Your task to perform on an android device: change your default location settings in chrome Image 0: 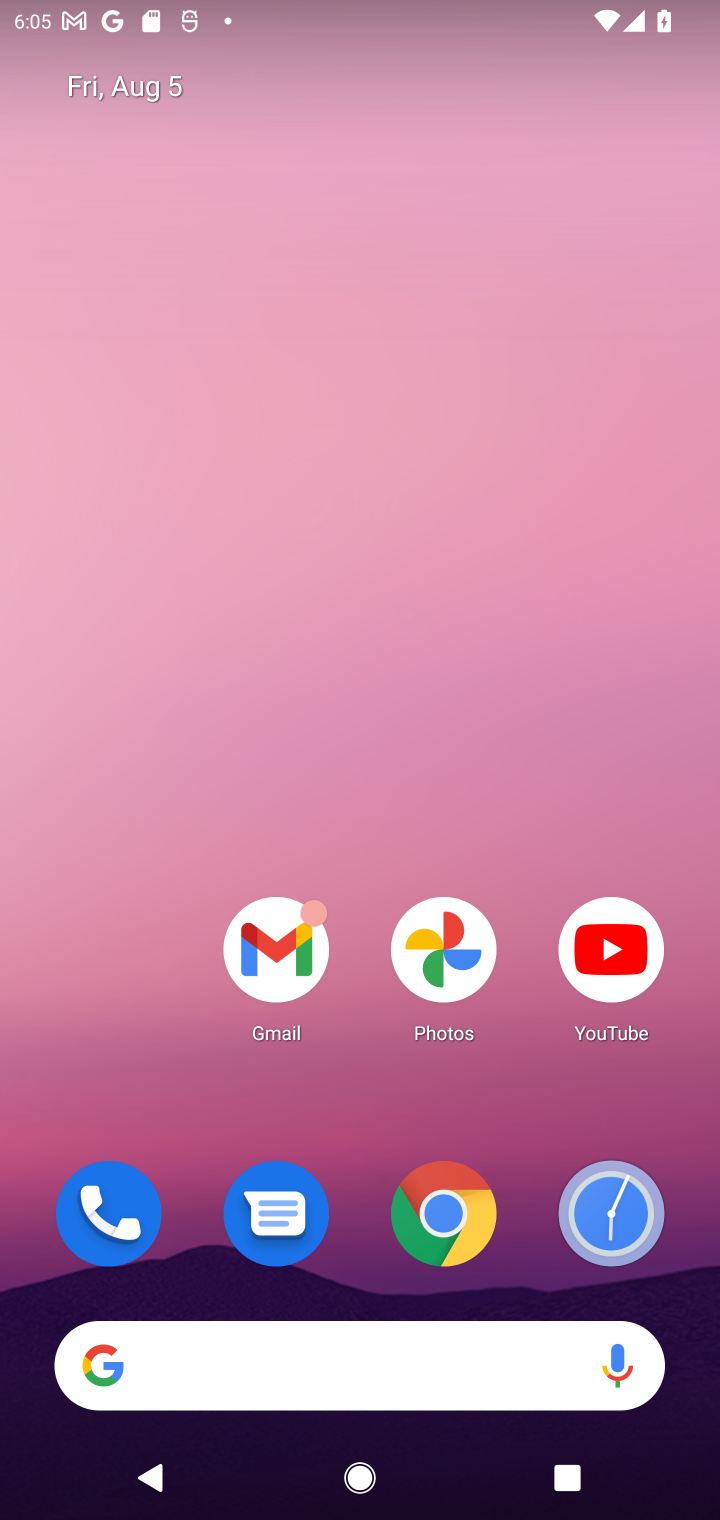
Step 0: drag from (358, 1301) to (387, 355)
Your task to perform on an android device: change your default location settings in chrome Image 1: 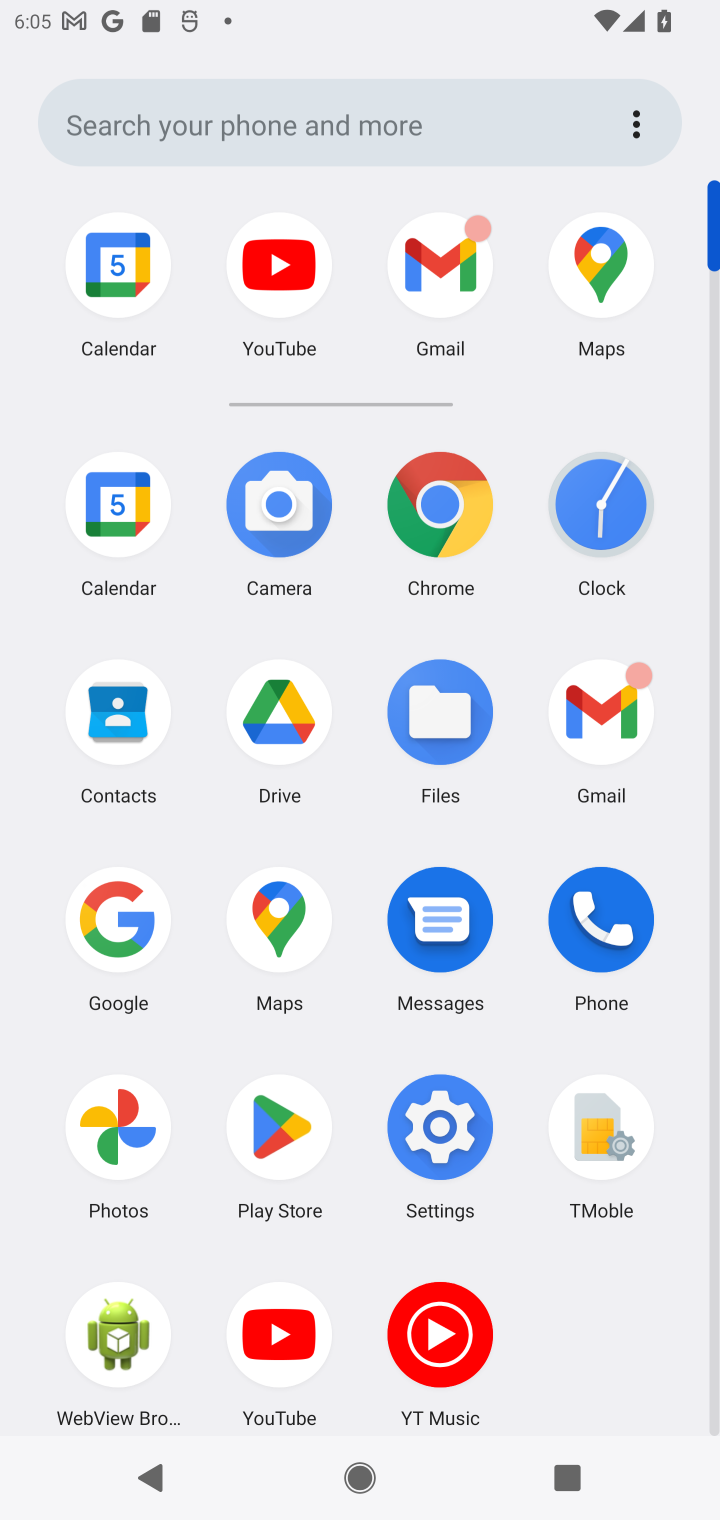
Step 1: click (462, 1207)
Your task to perform on an android device: change your default location settings in chrome Image 2: 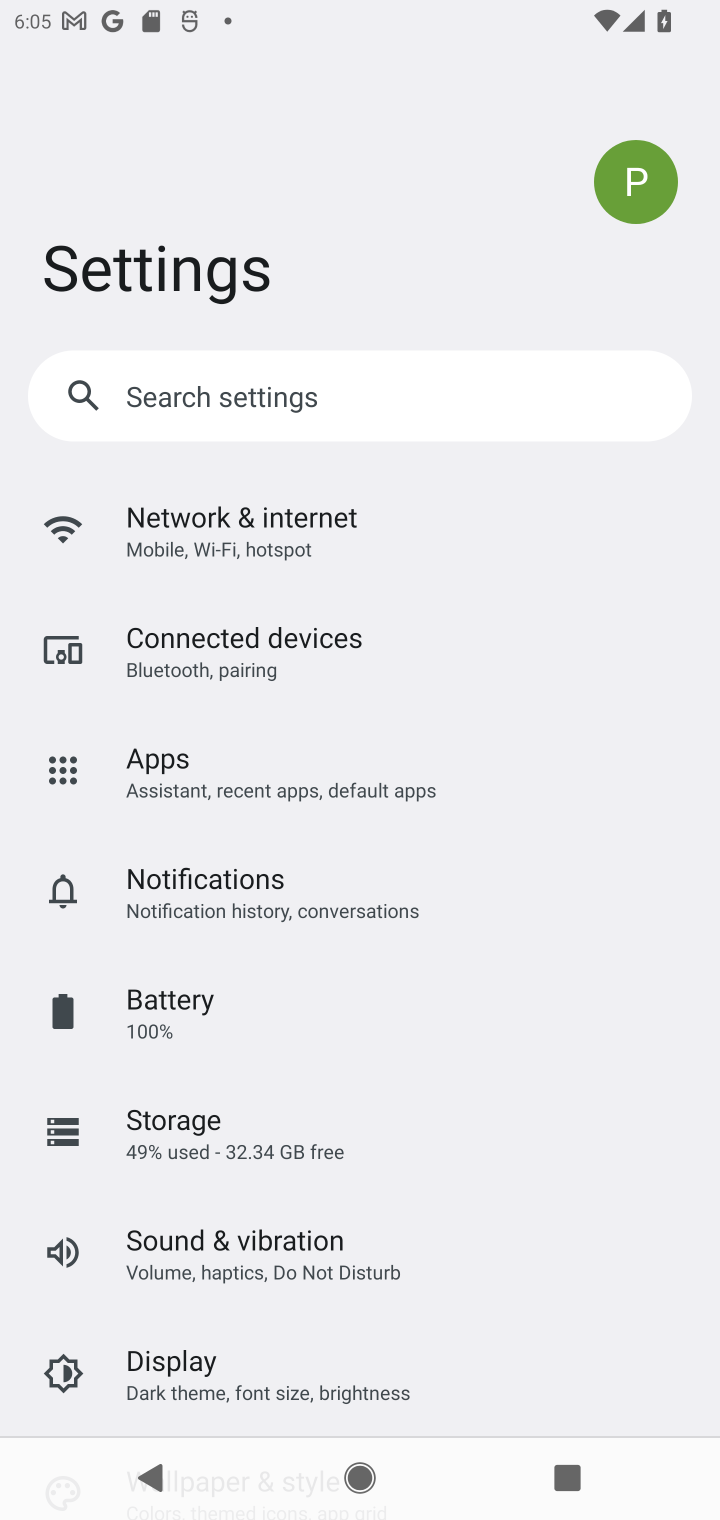
Step 2: drag from (269, 1278) to (322, 504)
Your task to perform on an android device: change your default location settings in chrome Image 3: 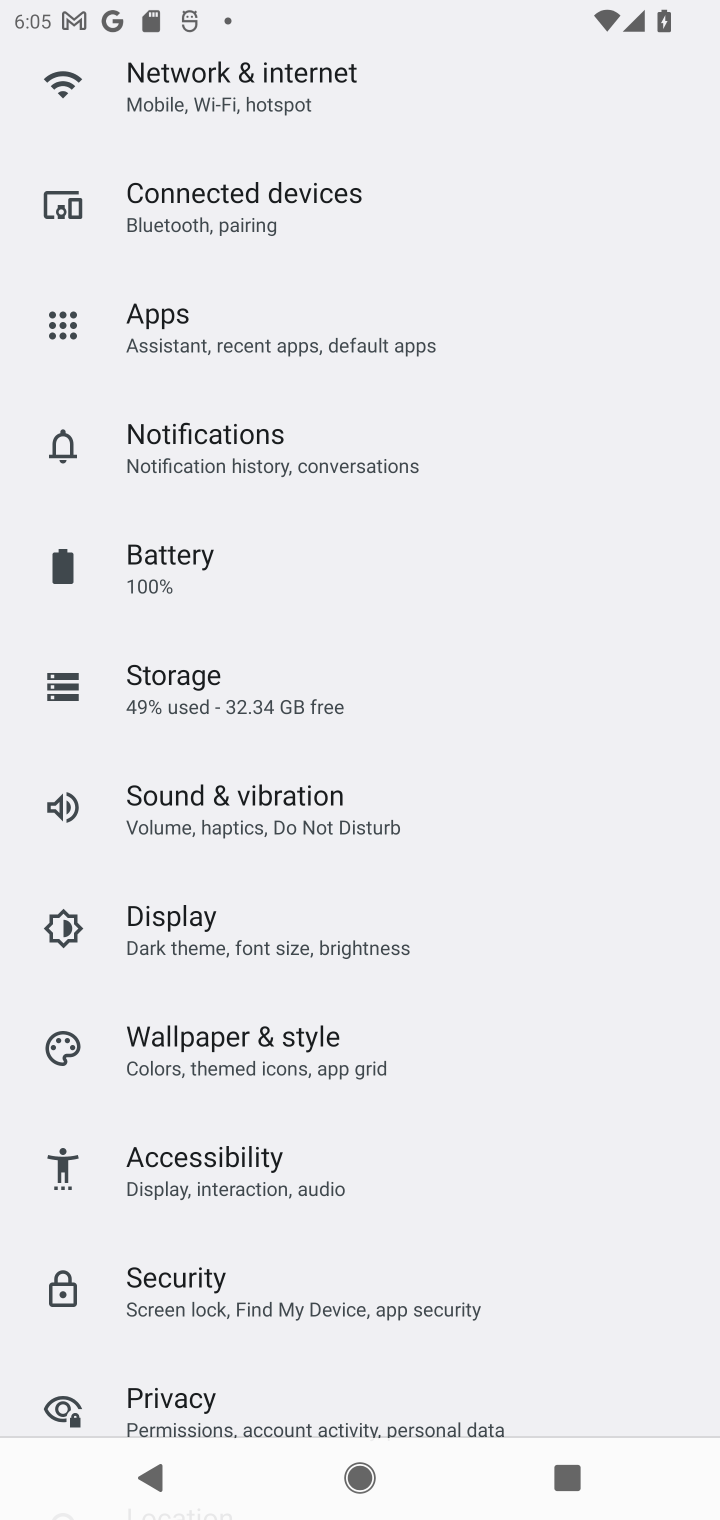
Step 3: drag from (328, 1354) to (400, 582)
Your task to perform on an android device: change your default location settings in chrome Image 4: 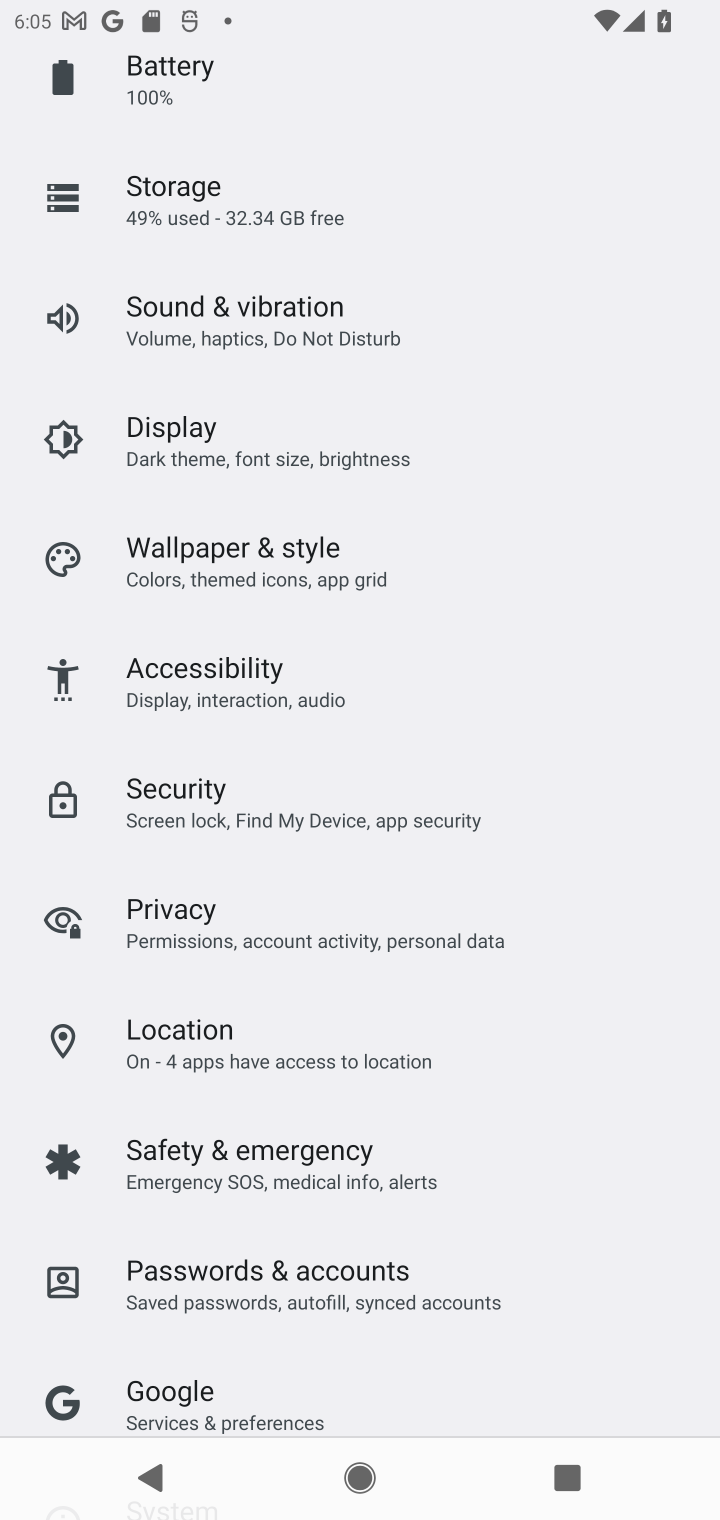
Step 4: click (364, 1027)
Your task to perform on an android device: change your default location settings in chrome Image 5: 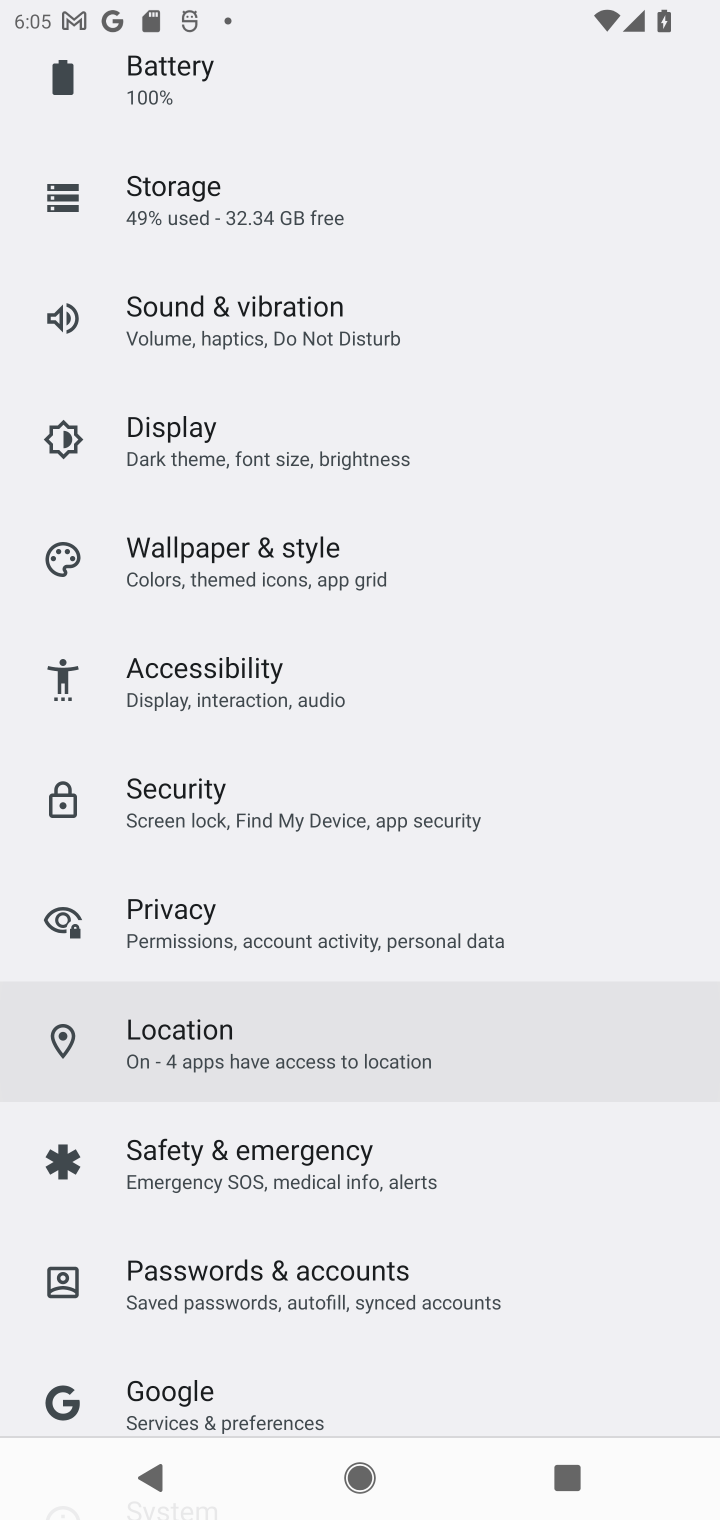
Step 5: task complete